Your task to perform on an android device: turn on showing notifications on the lock screen Image 0: 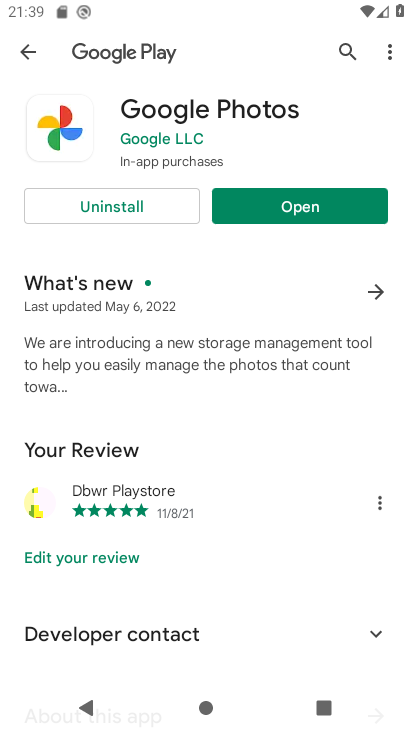
Step 0: press home button
Your task to perform on an android device: turn on showing notifications on the lock screen Image 1: 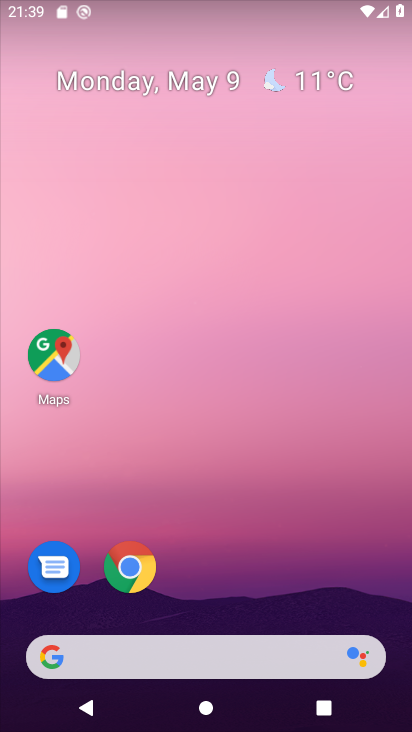
Step 1: drag from (329, 581) to (206, 56)
Your task to perform on an android device: turn on showing notifications on the lock screen Image 2: 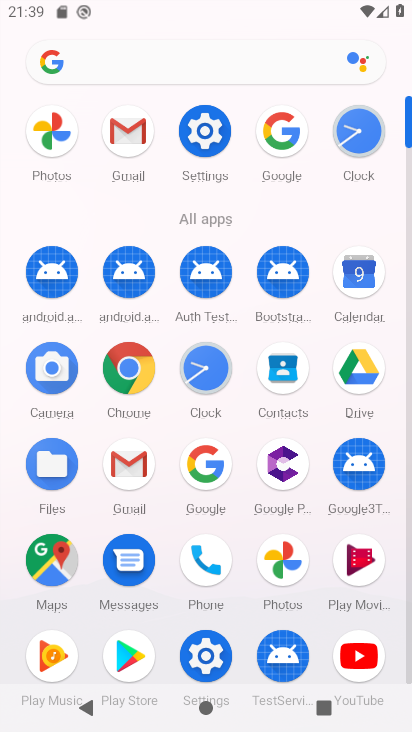
Step 2: click (214, 133)
Your task to perform on an android device: turn on showing notifications on the lock screen Image 3: 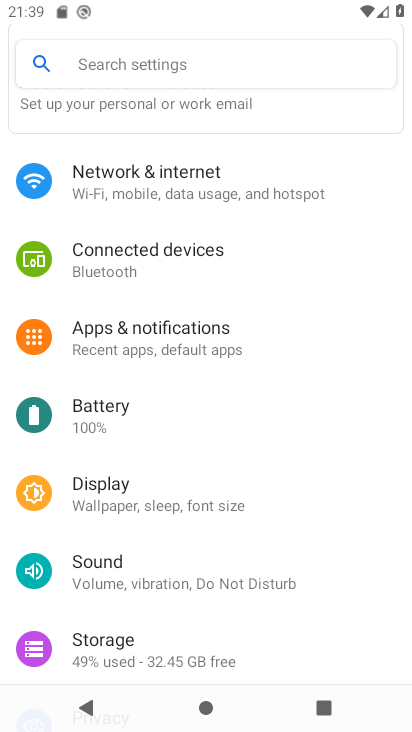
Step 3: click (168, 334)
Your task to perform on an android device: turn on showing notifications on the lock screen Image 4: 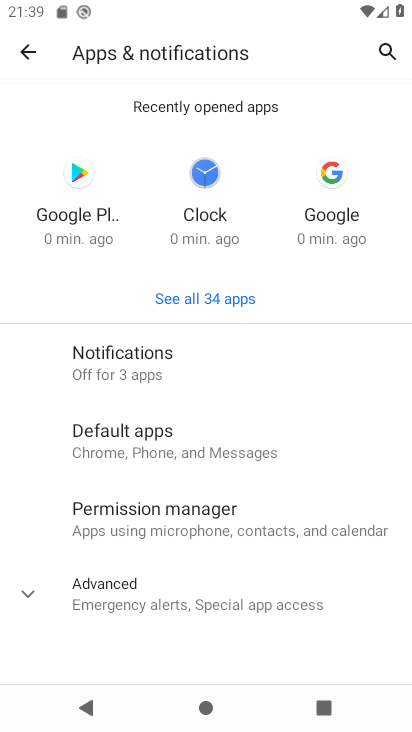
Step 4: click (180, 374)
Your task to perform on an android device: turn on showing notifications on the lock screen Image 5: 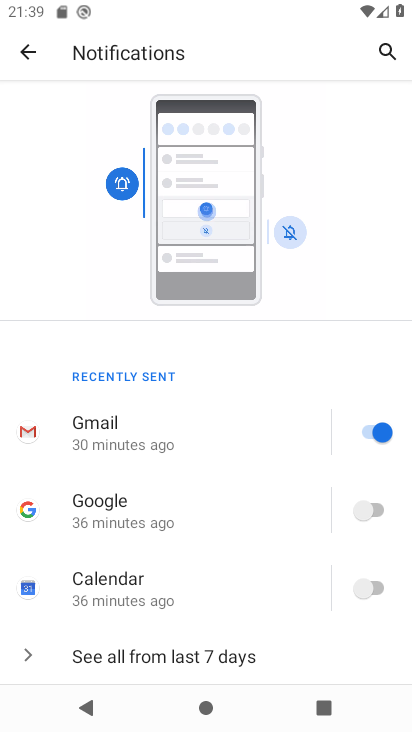
Step 5: drag from (206, 564) to (207, 115)
Your task to perform on an android device: turn on showing notifications on the lock screen Image 6: 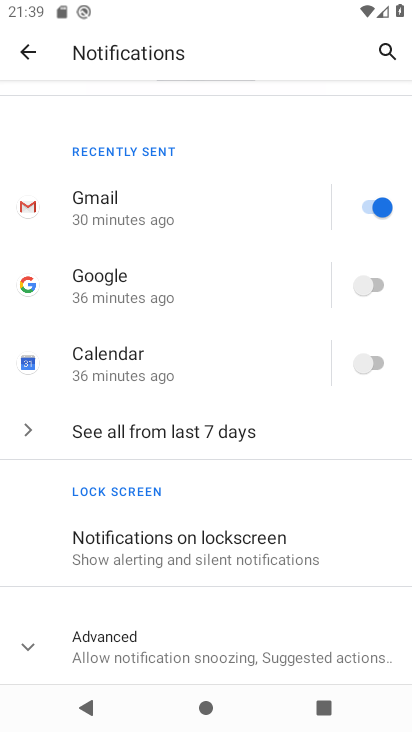
Step 6: click (175, 542)
Your task to perform on an android device: turn on showing notifications on the lock screen Image 7: 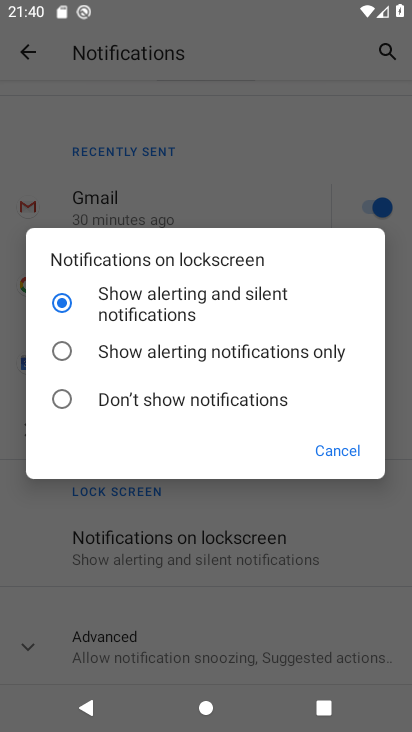
Step 7: task complete